Your task to perform on an android device: add a contact Image 0: 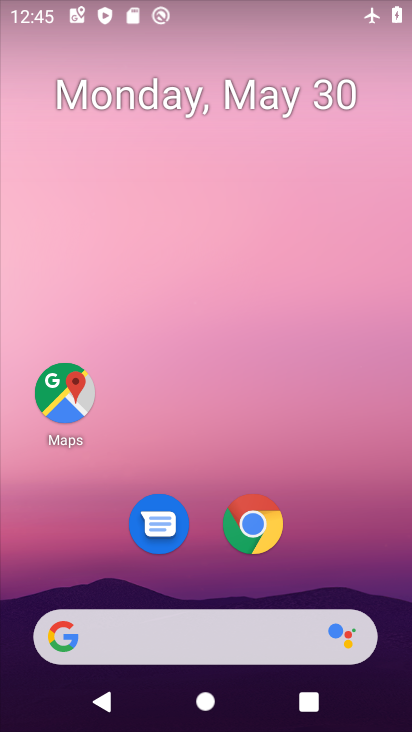
Step 0: drag from (332, 524) to (289, 79)
Your task to perform on an android device: add a contact Image 1: 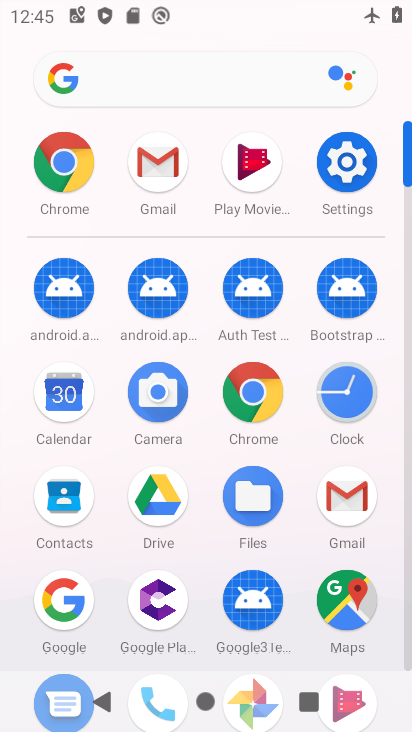
Step 1: click (69, 496)
Your task to perform on an android device: add a contact Image 2: 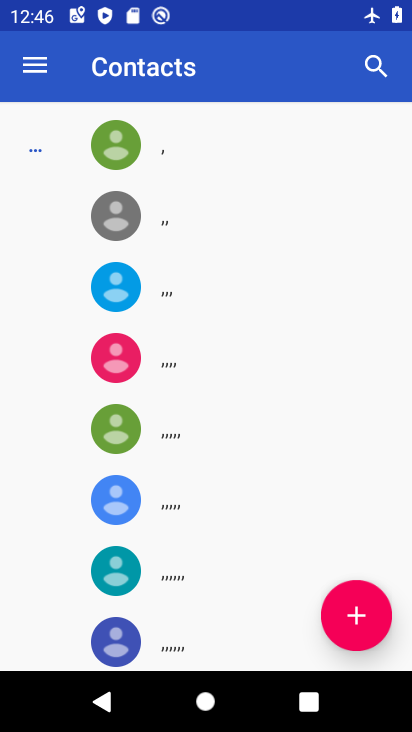
Step 2: click (362, 612)
Your task to perform on an android device: add a contact Image 3: 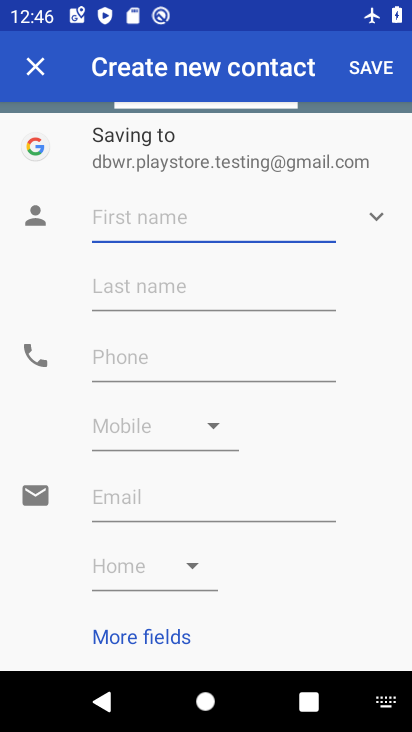
Step 3: type "Mahakal Ujjain Teerth"
Your task to perform on an android device: add a contact Image 4: 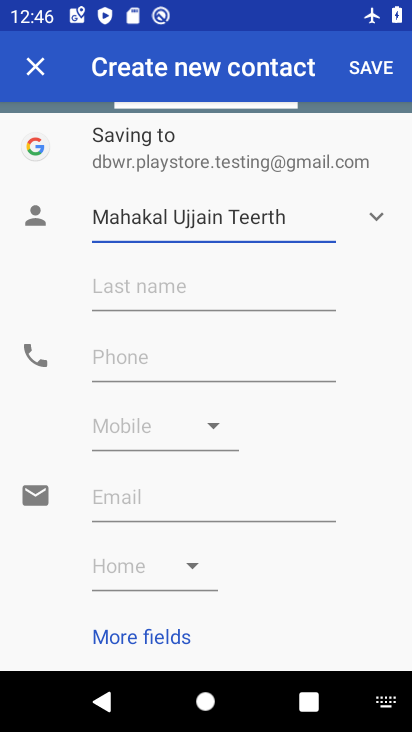
Step 4: click (228, 362)
Your task to perform on an android device: add a contact Image 5: 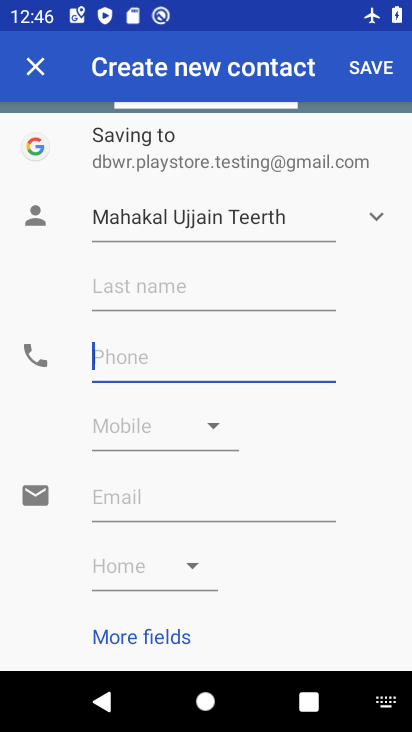
Step 5: type "9199100333555"
Your task to perform on an android device: add a contact Image 6: 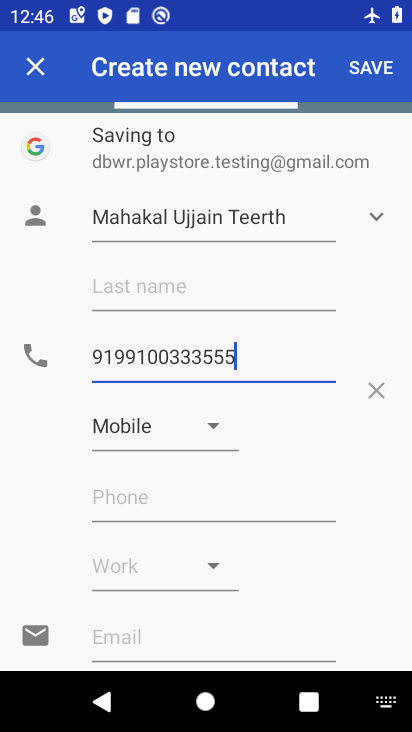
Step 6: click (383, 52)
Your task to perform on an android device: add a contact Image 7: 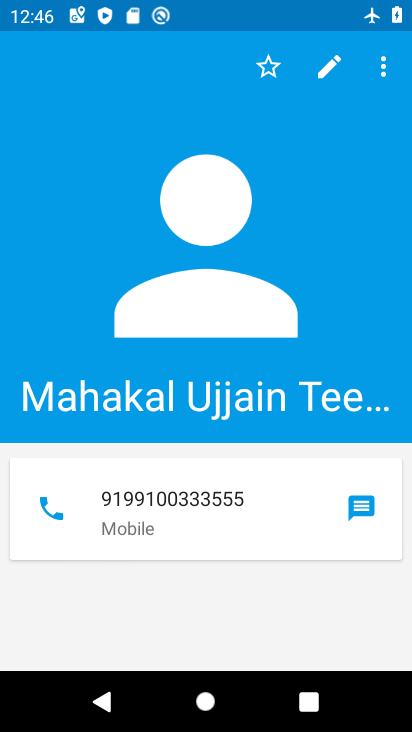
Step 7: task complete